Your task to perform on an android device: toggle notifications settings in the gmail app Image 0: 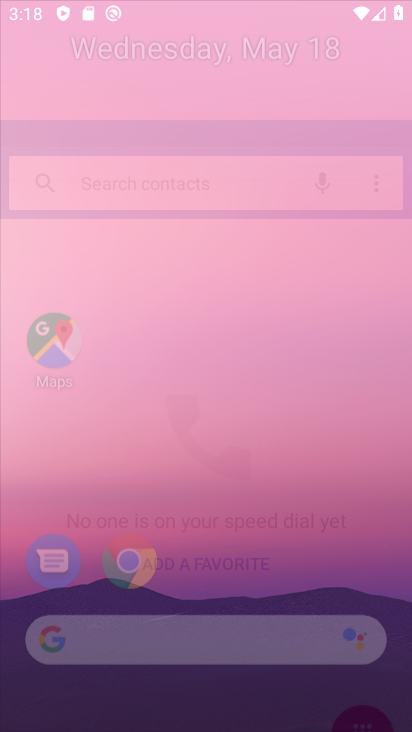
Step 0: drag from (191, 293) to (188, 258)
Your task to perform on an android device: toggle notifications settings in the gmail app Image 1: 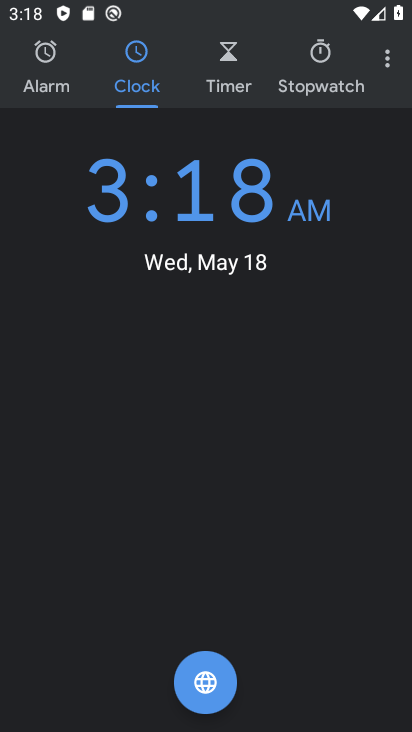
Step 1: press home button
Your task to perform on an android device: toggle notifications settings in the gmail app Image 2: 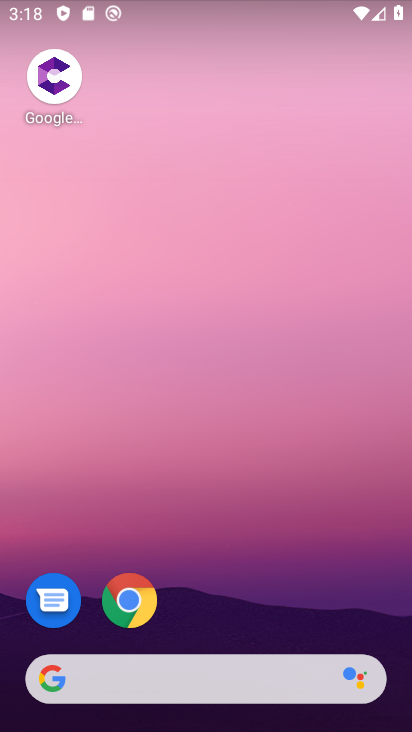
Step 2: drag from (223, 637) to (237, 227)
Your task to perform on an android device: toggle notifications settings in the gmail app Image 3: 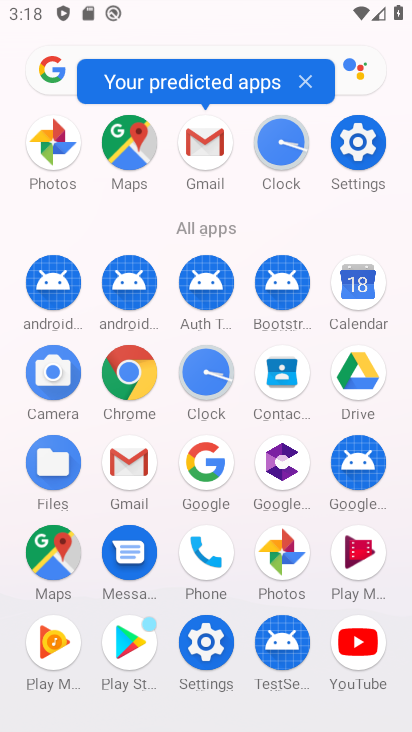
Step 3: click (122, 474)
Your task to perform on an android device: toggle notifications settings in the gmail app Image 4: 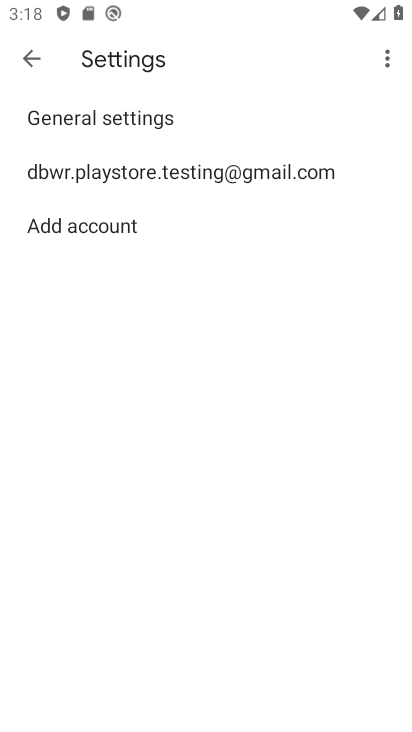
Step 4: click (186, 173)
Your task to perform on an android device: toggle notifications settings in the gmail app Image 5: 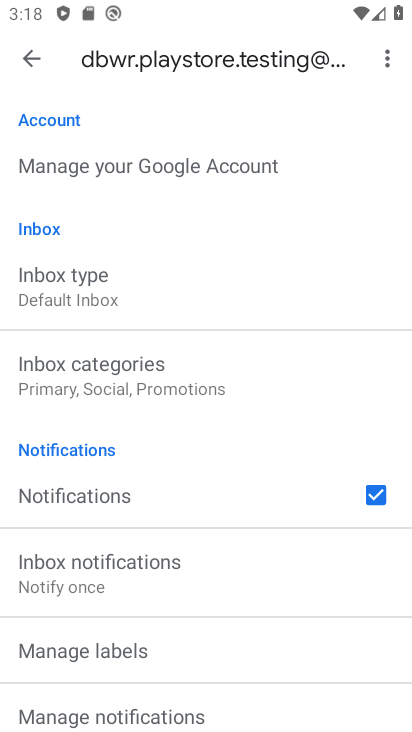
Step 5: click (133, 705)
Your task to perform on an android device: toggle notifications settings in the gmail app Image 6: 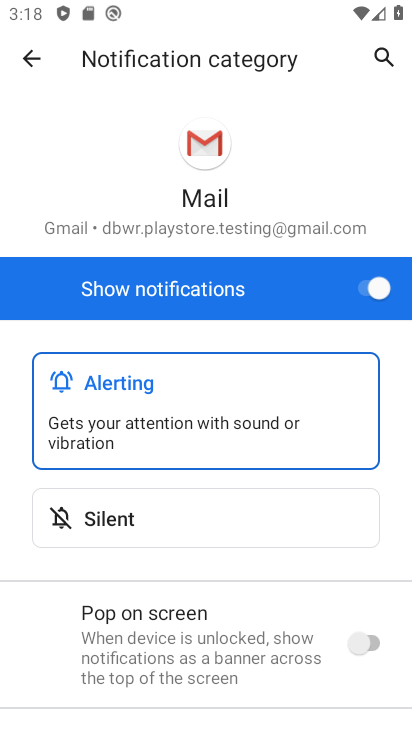
Step 6: click (371, 293)
Your task to perform on an android device: toggle notifications settings in the gmail app Image 7: 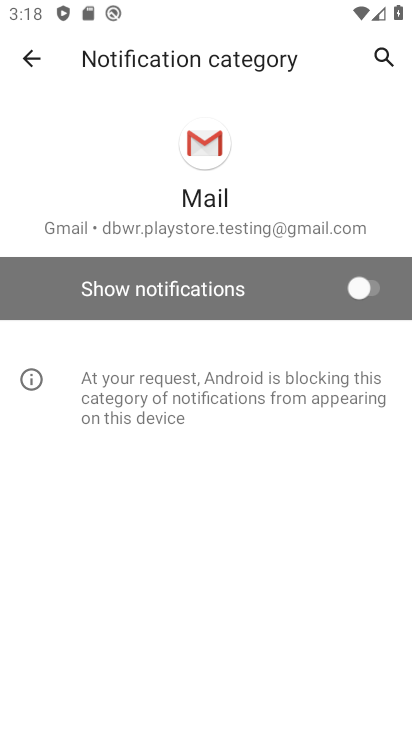
Step 7: task complete